Your task to perform on an android device: toggle notification dots Image 0: 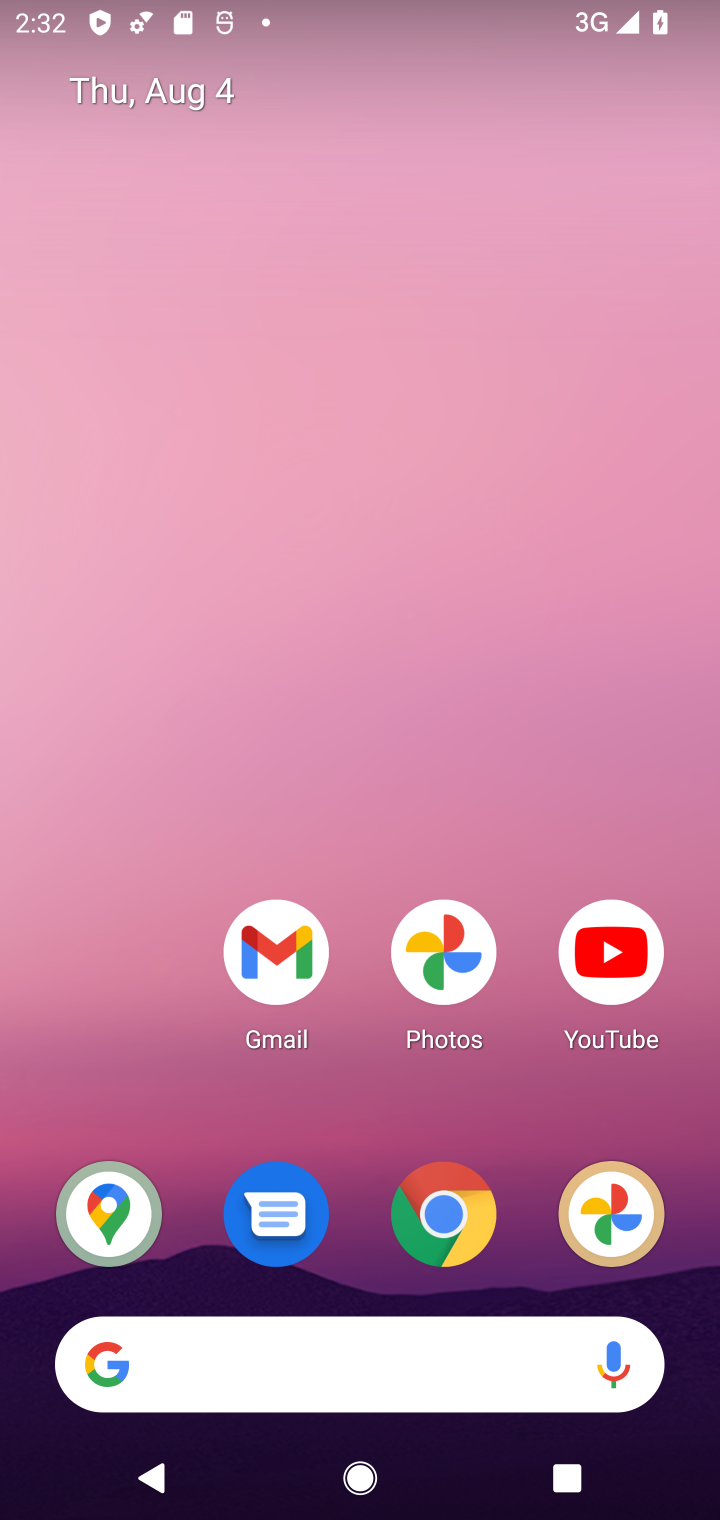
Step 0: drag from (125, 1005) to (176, 60)
Your task to perform on an android device: toggle notification dots Image 1: 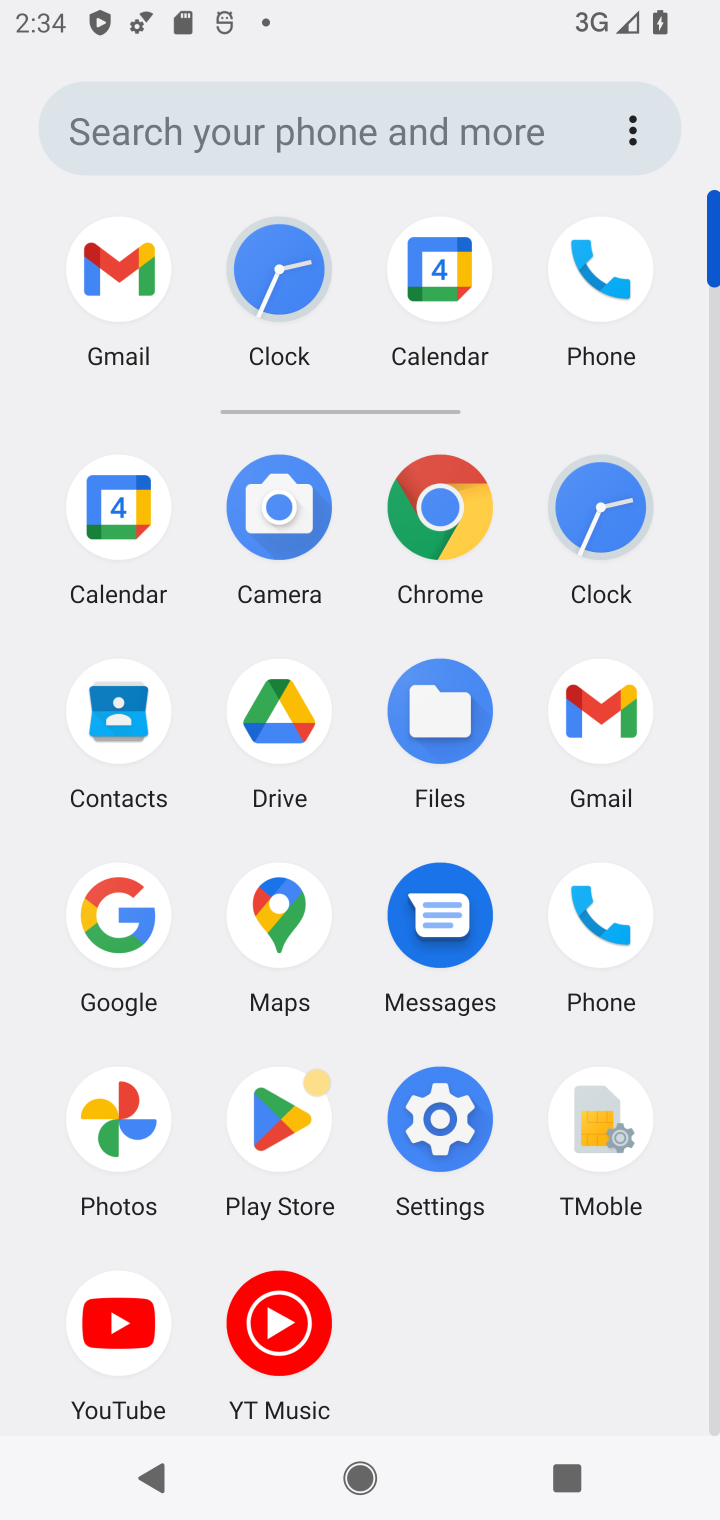
Step 1: click (428, 1153)
Your task to perform on an android device: toggle notification dots Image 2: 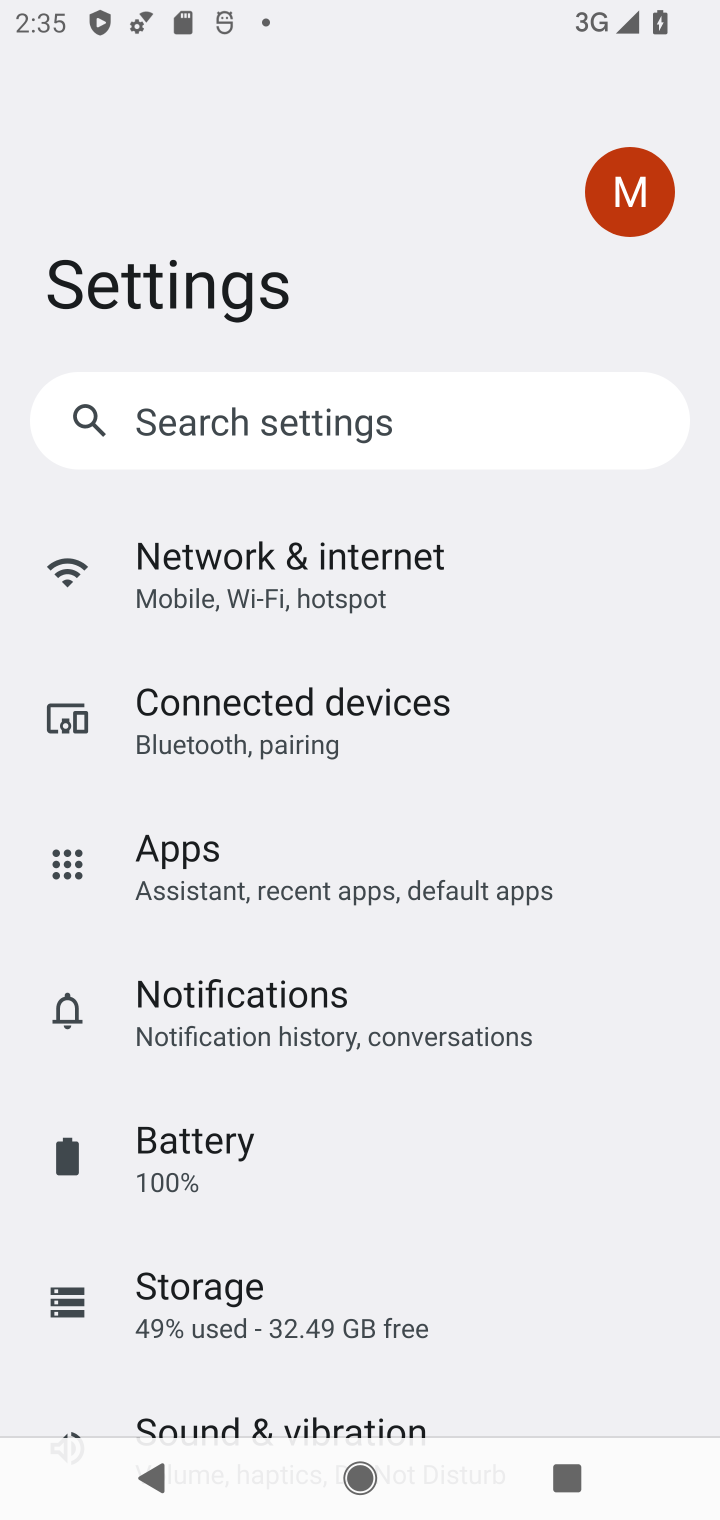
Step 2: click (333, 1035)
Your task to perform on an android device: toggle notification dots Image 3: 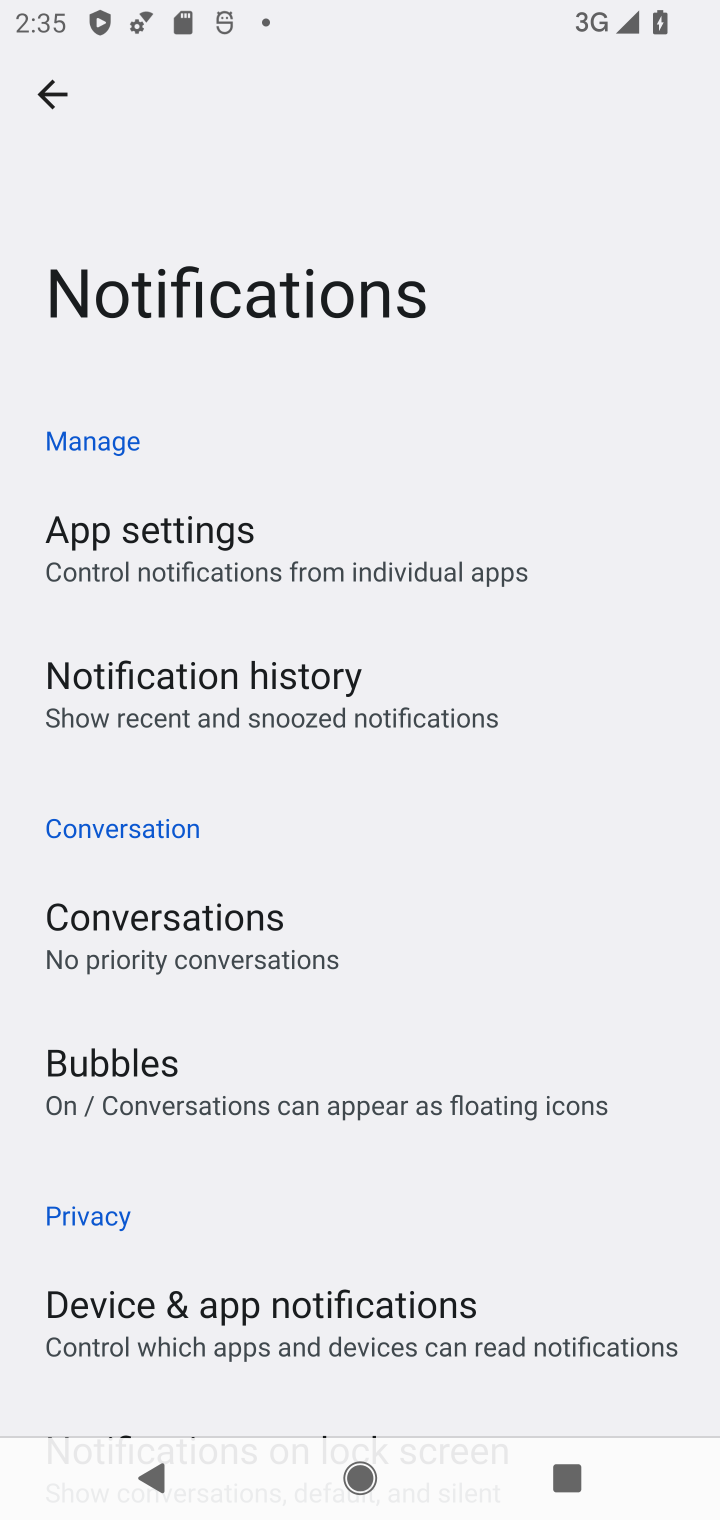
Step 3: drag from (389, 1306) to (270, 137)
Your task to perform on an android device: toggle notification dots Image 4: 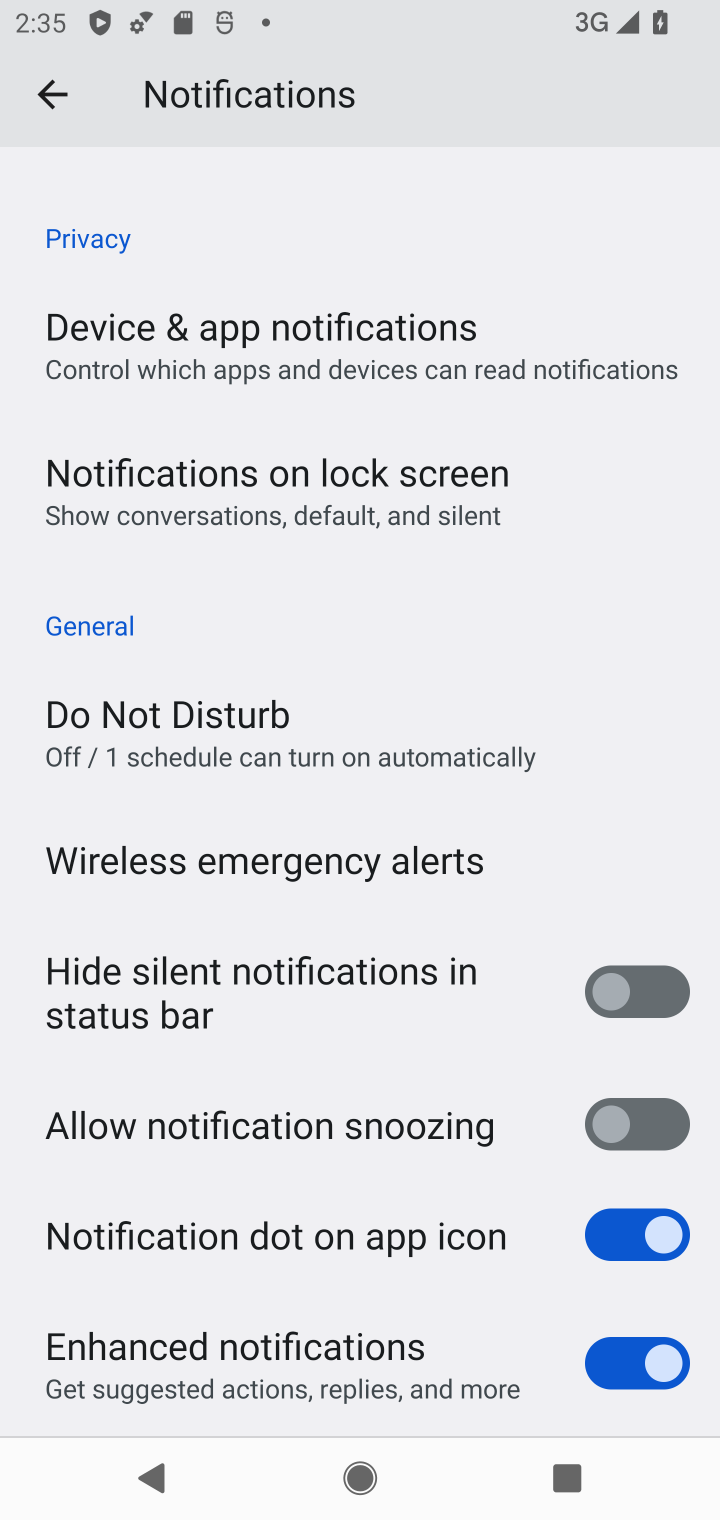
Step 4: click (428, 1240)
Your task to perform on an android device: toggle notification dots Image 5: 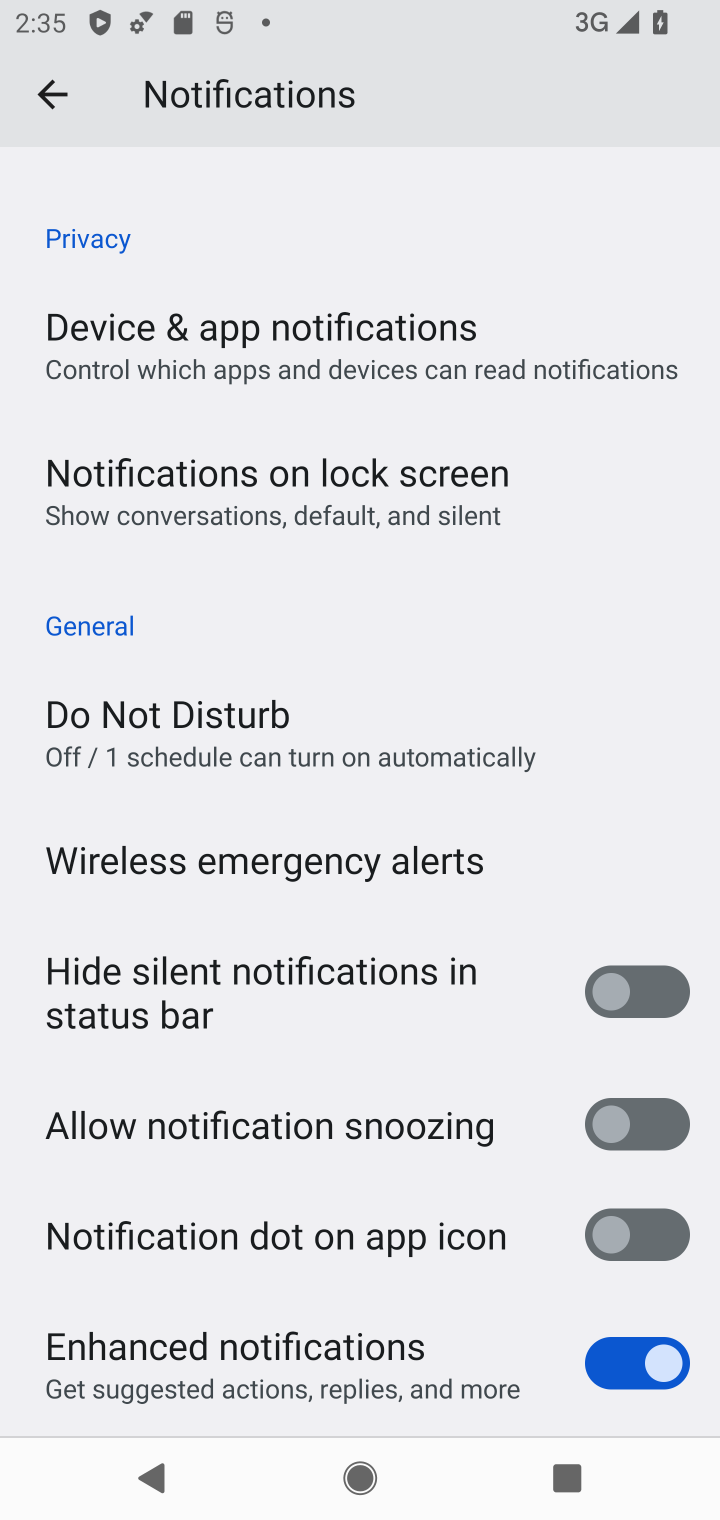
Step 5: task complete